Your task to perform on an android device: Go to notification settings Image 0: 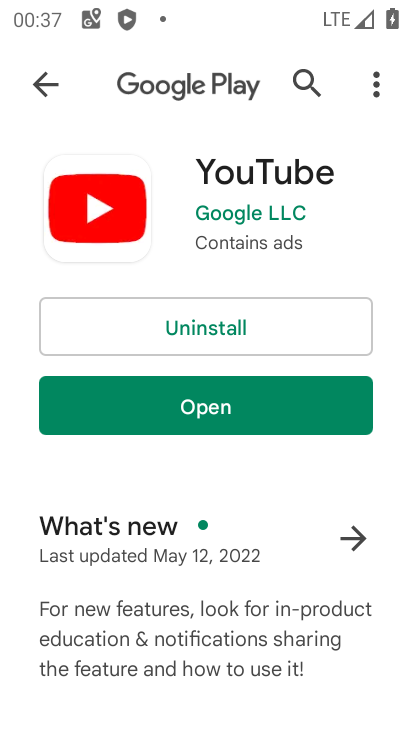
Step 0: press home button
Your task to perform on an android device: Go to notification settings Image 1: 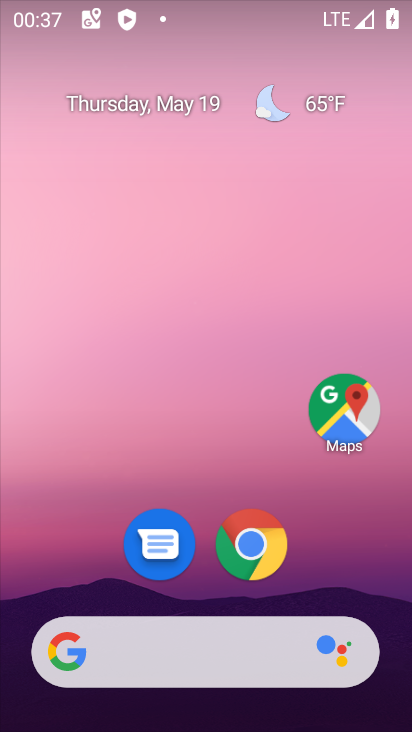
Step 1: drag from (379, 563) to (351, 153)
Your task to perform on an android device: Go to notification settings Image 2: 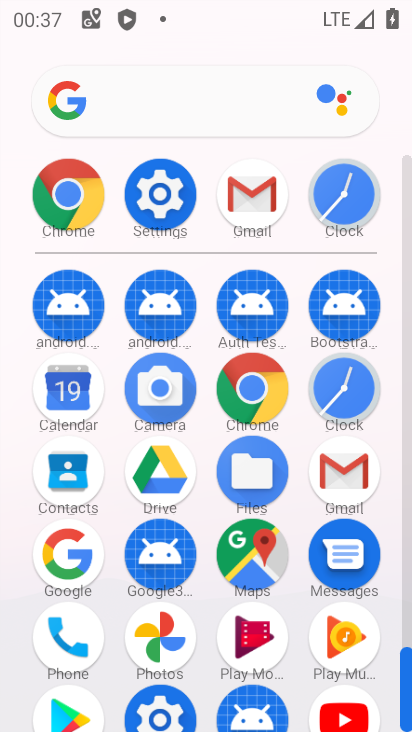
Step 2: click (164, 195)
Your task to perform on an android device: Go to notification settings Image 3: 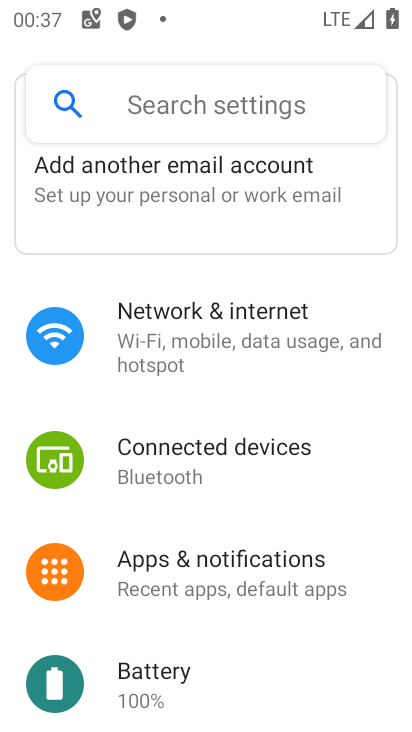
Step 3: drag from (298, 591) to (313, 400)
Your task to perform on an android device: Go to notification settings Image 4: 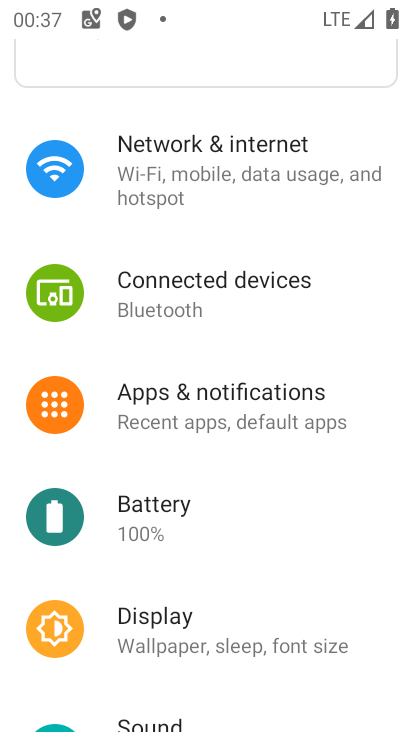
Step 4: drag from (286, 579) to (297, 412)
Your task to perform on an android device: Go to notification settings Image 5: 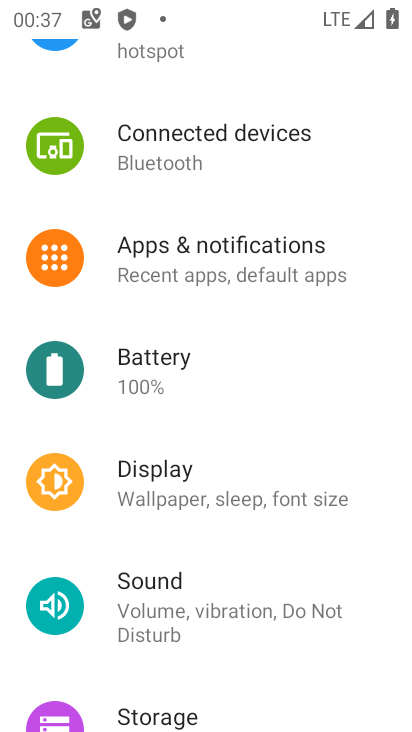
Step 5: drag from (325, 651) to (330, 467)
Your task to perform on an android device: Go to notification settings Image 6: 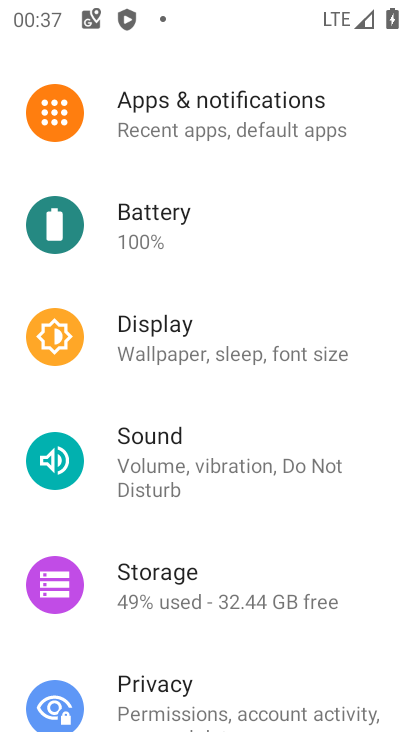
Step 6: drag from (335, 663) to (331, 501)
Your task to perform on an android device: Go to notification settings Image 7: 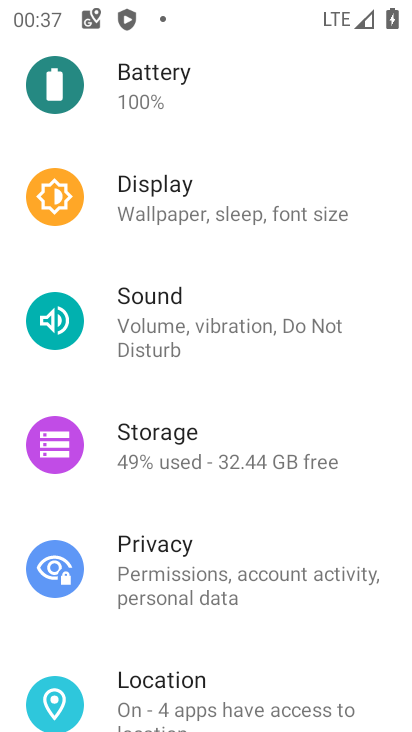
Step 7: drag from (329, 661) to (333, 506)
Your task to perform on an android device: Go to notification settings Image 8: 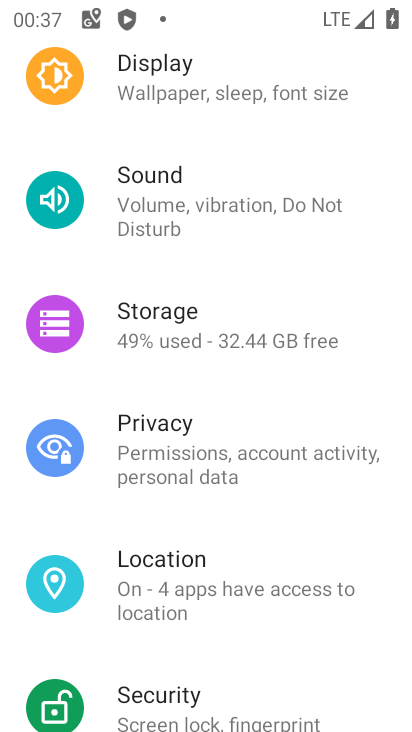
Step 8: drag from (324, 650) to (331, 533)
Your task to perform on an android device: Go to notification settings Image 9: 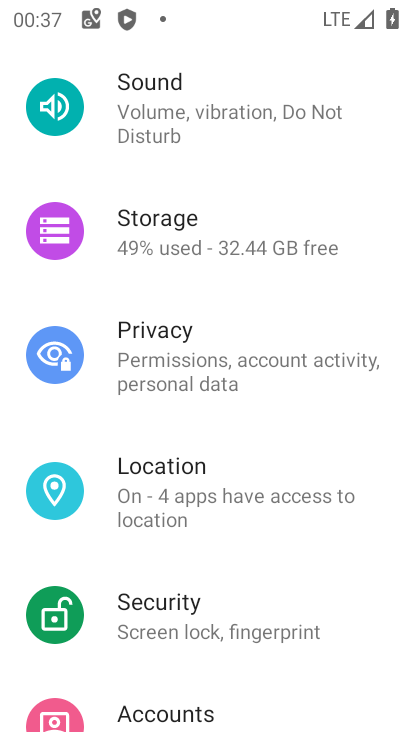
Step 9: drag from (342, 656) to (355, 545)
Your task to perform on an android device: Go to notification settings Image 10: 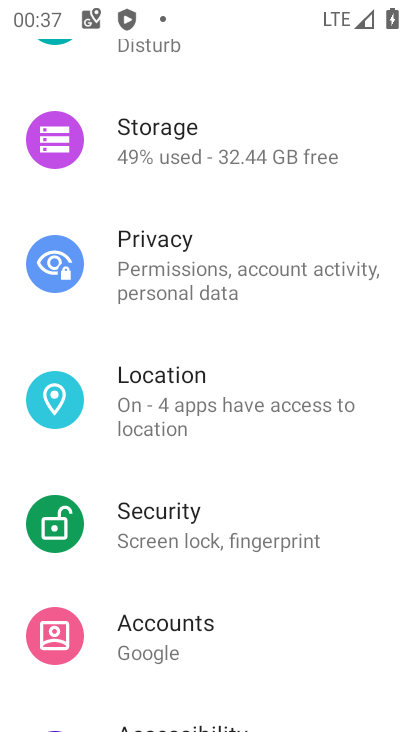
Step 10: drag from (332, 672) to (338, 547)
Your task to perform on an android device: Go to notification settings Image 11: 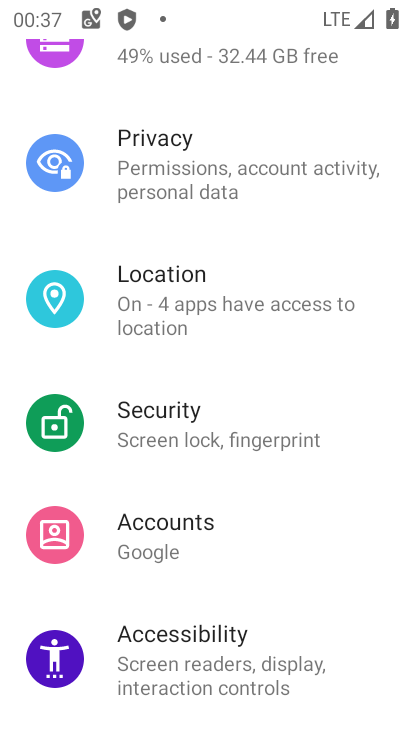
Step 11: drag from (335, 689) to (342, 554)
Your task to perform on an android device: Go to notification settings Image 12: 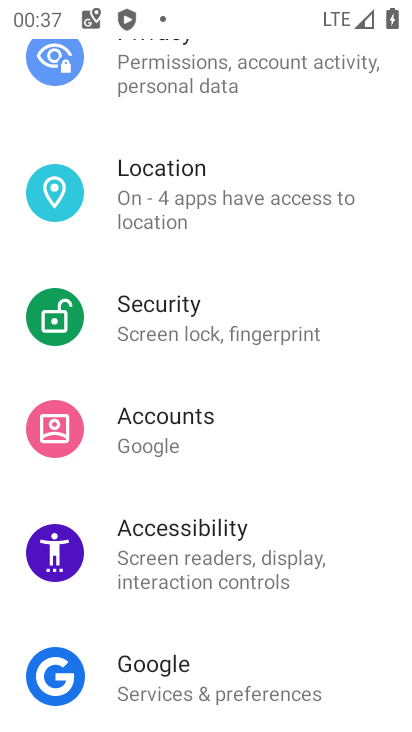
Step 12: drag from (342, 654) to (352, 535)
Your task to perform on an android device: Go to notification settings Image 13: 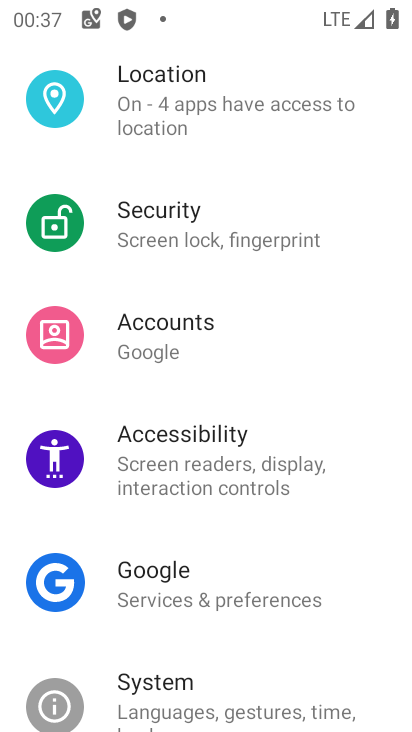
Step 13: drag from (352, 664) to (359, 503)
Your task to perform on an android device: Go to notification settings Image 14: 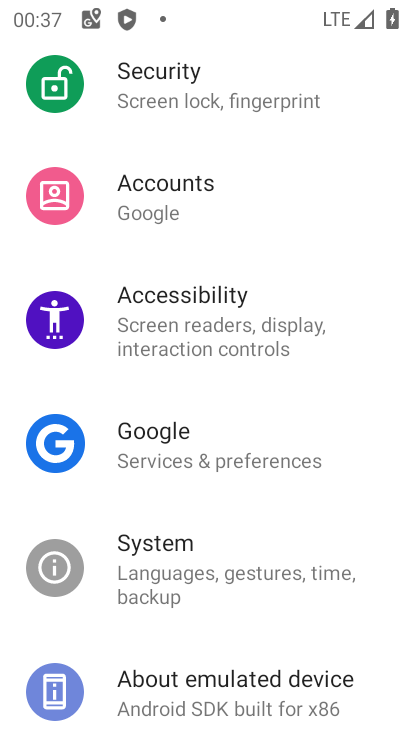
Step 14: drag from (349, 606) to (345, 447)
Your task to perform on an android device: Go to notification settings Image 15: 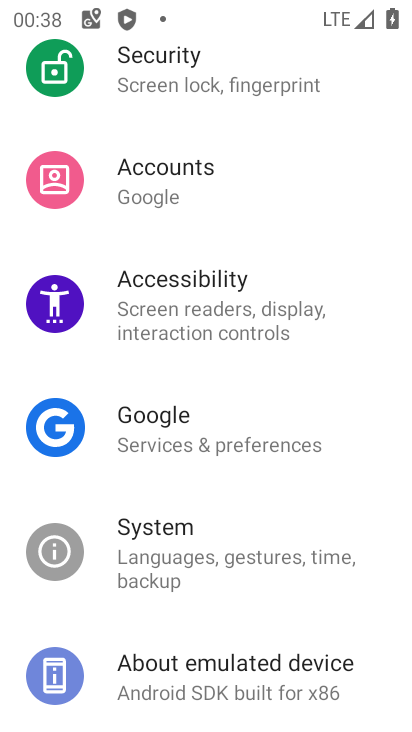
Step 15: drag from (343, 602) to (339, 432)
Your task to perform on an android device: Go to notification settings Image 16: 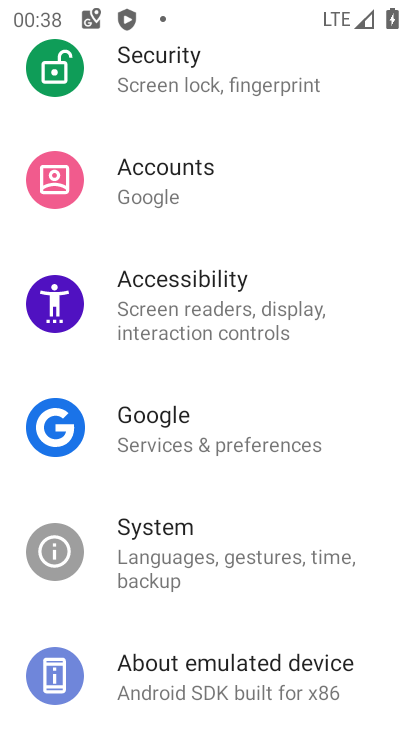
Step 16: drag from (334, 601) to (341, 421)
Your task to perform on an android device: Go to notification settings Image 17: 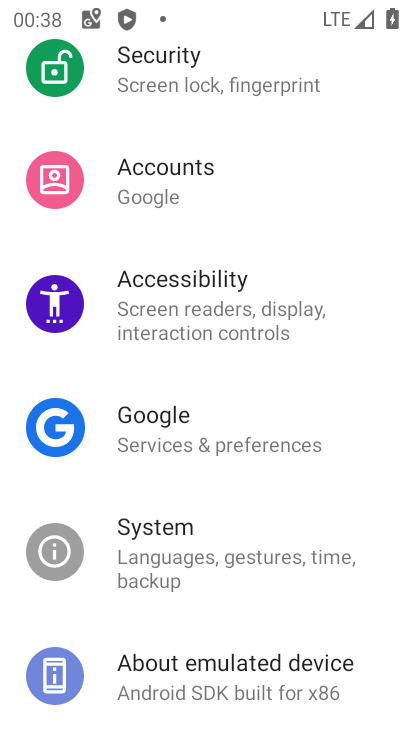
Step 17: drag from (347, 347) to (336, 553)
Your task to perform on an android device: Go to notification settings Image 18: 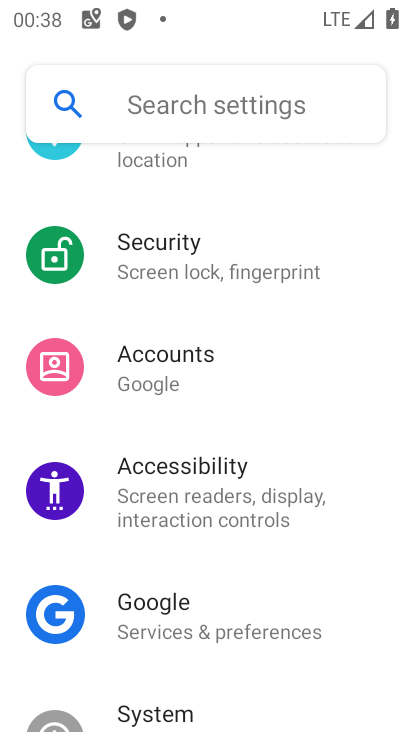
Step 18: drag from (338, 370) to (339, 517)
Your task to perform on an android device: Go to notification settings Image 19: 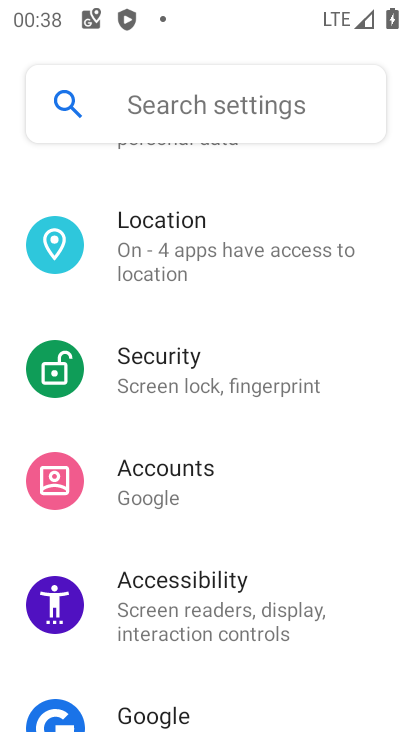
Step 19: drag from (332, 315) to (338, 467)
Your task to perform on an android device: Go to notification settings Image 20: 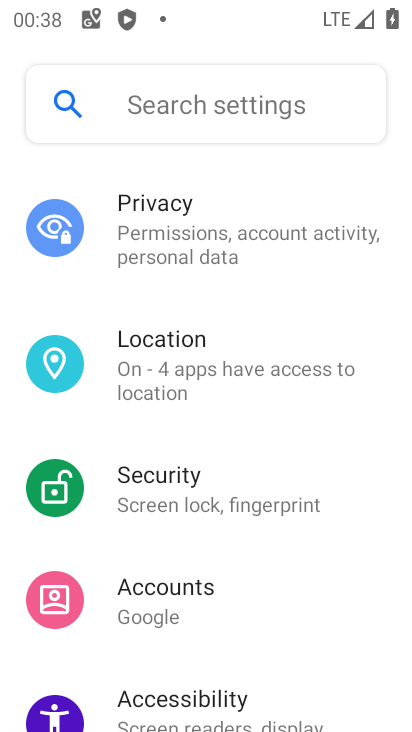
Step 20: drag from (332, 281) to (320, 473)
Your task to perform on an android device: Go to notification settings Image 21: 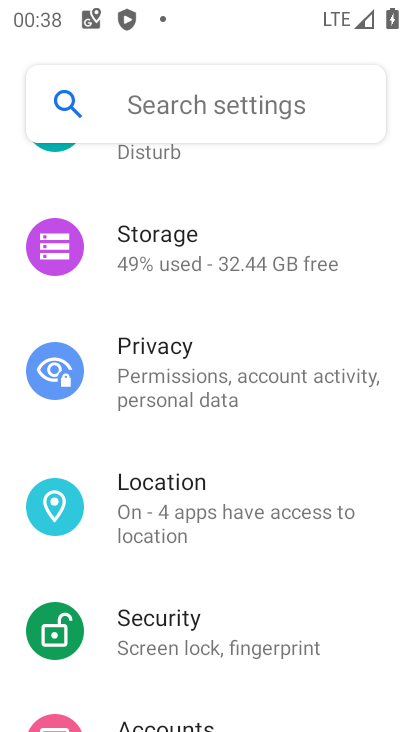
Step 21: drag from (335, 201) to (335, 388)
Your task to perform on an android device: Go to notification settings Image 22: 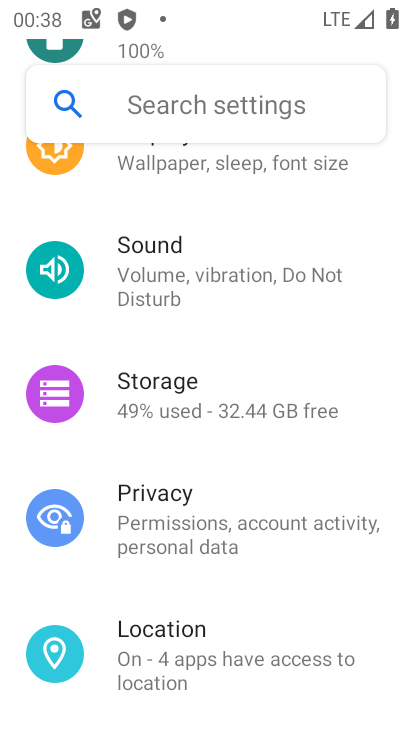
Step 22: drag from (330, 213) to (308, 395)
Your task to perform on an android device: Go to notification settings Image 23: 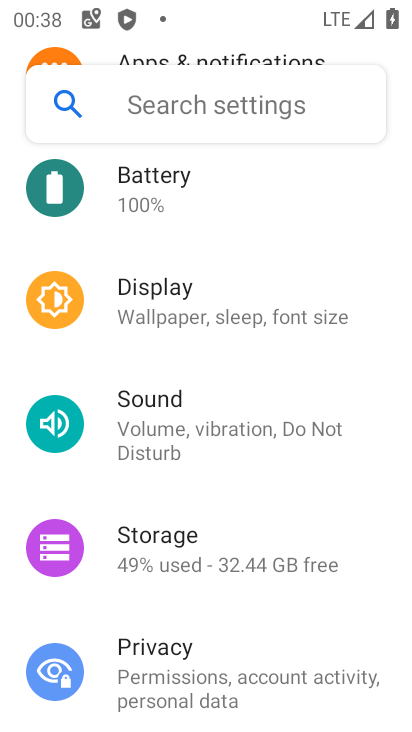
Step 23: drag from (310, 217) to (307, 393)
Your task to perform on an android device: Go to notification settings Image 24: 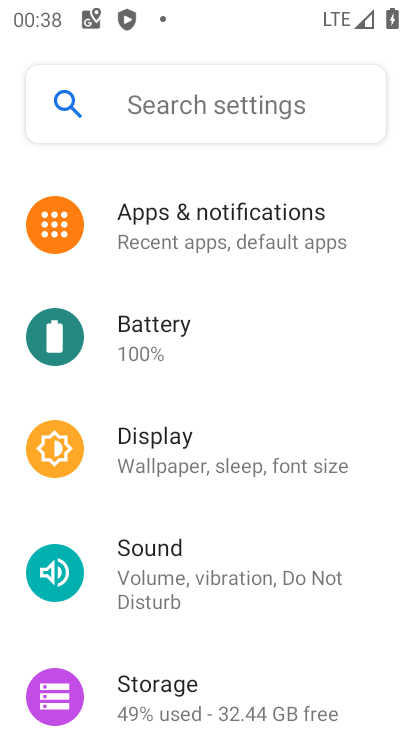
Step 24: click (271, 235)
Your task to perform on an android device: Go to notification settings Image 25: 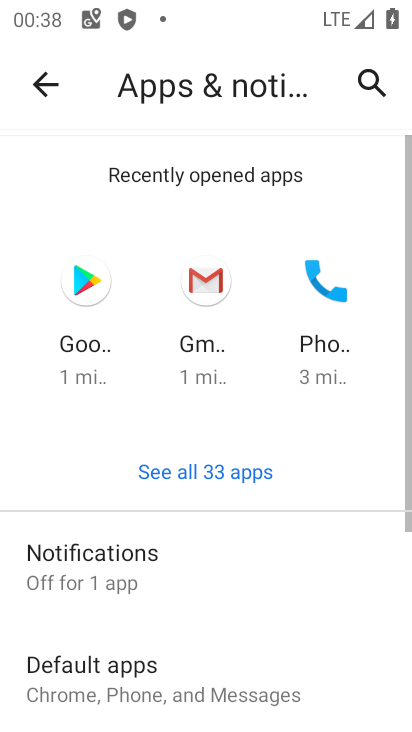
Step 25: drag from (266, 533) to (274, 247)
Your task to perform on an android device: Go to notification settings Image 26: 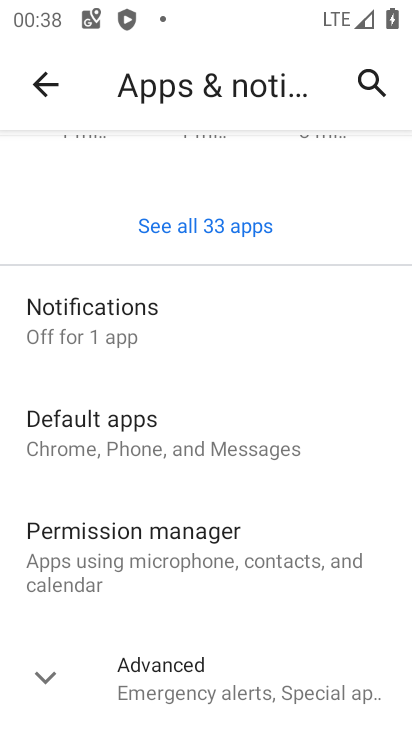
Step 26: click (178, 338)
Your task to perform on an android device: Go to notification settings Image 27: 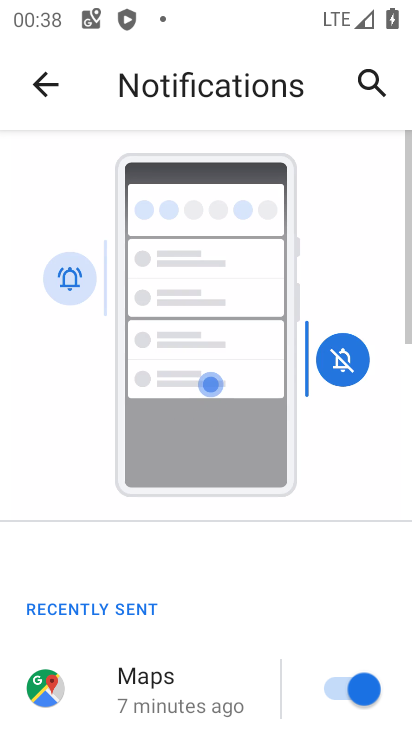
Step 27: task complete